Your task to perform on an android device: Open my contact list Image 0: 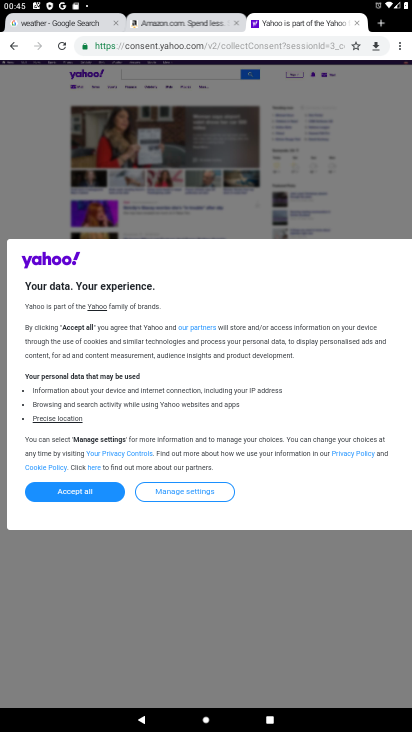
Step 0: press home button
Your task to perform on an android device: Open my contact list Image 1: 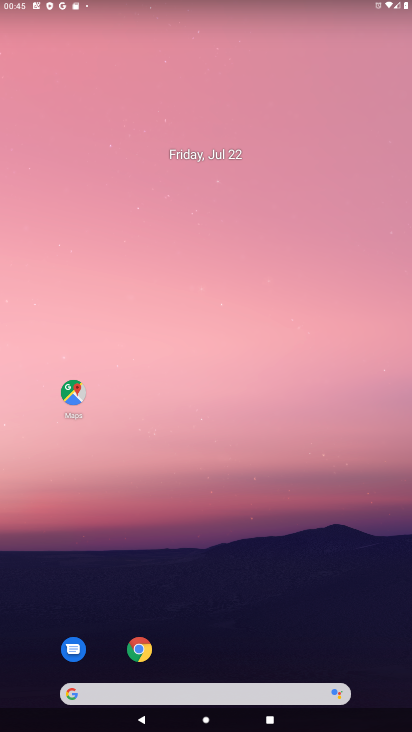
Step 1: drag from (275, 658) to (141, 111)
Your task to perform on an android device: Open my contact list Image 2: 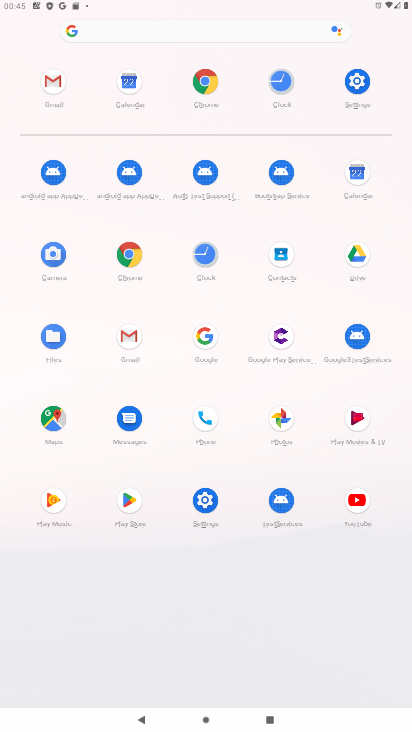
Step 2: click (282, 249)
Your task to perform on an android device: Open my contact list Image 3: 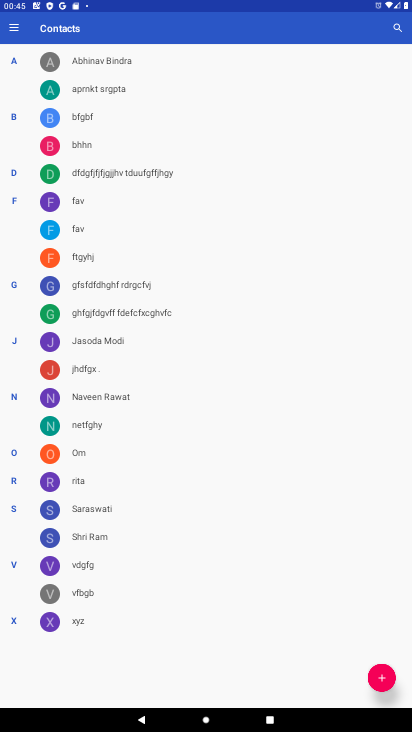
Step 3: task complete